Your task to perform on an android device: turn notification dots on Image 0: 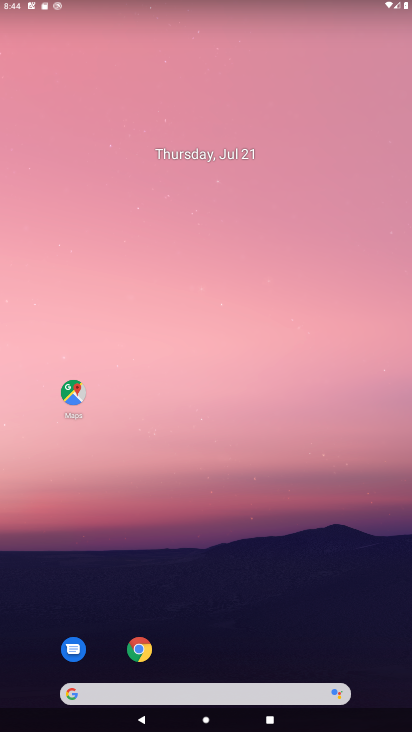
Step 0: drag from (190, 660) to (220, 124)
Your task to perform on an android device: turn notification dots on Image 1: 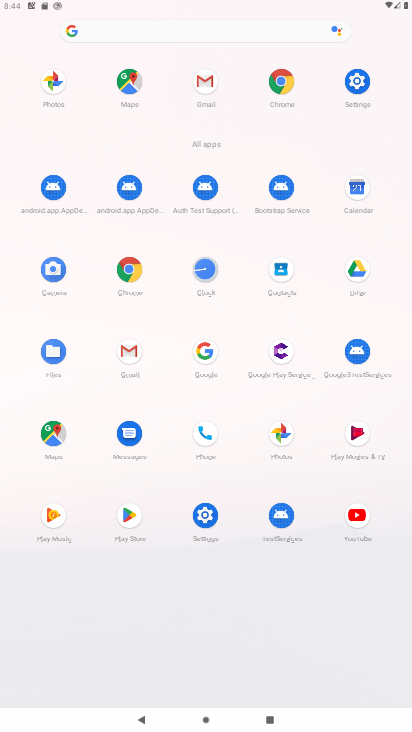
Step 1: click (351, 79)
Your task to perform on an android device: turn notification dots on Image 2: 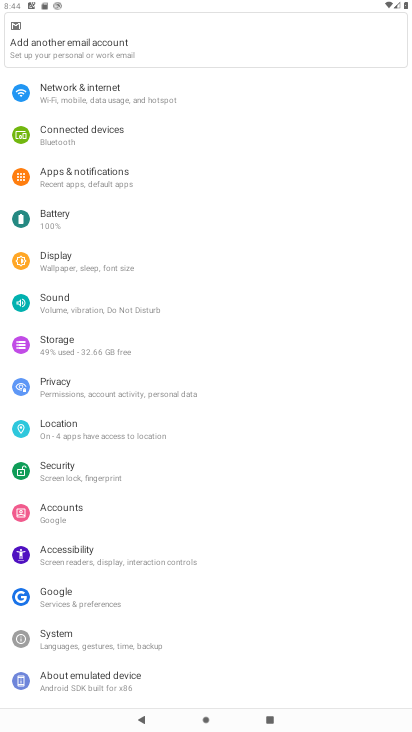
Step 2: click (41, 185)
Your task to perform on an android device: turn notification dots on Image 3: 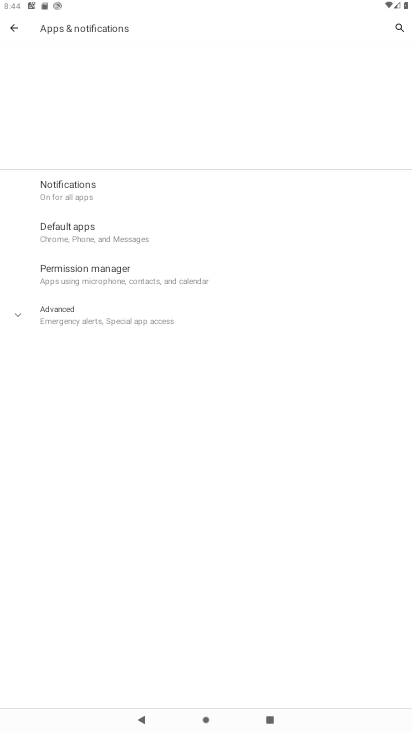
Step 3: click (76, 185)
Your task to perform on an android device: turn notification dots on Image 4: 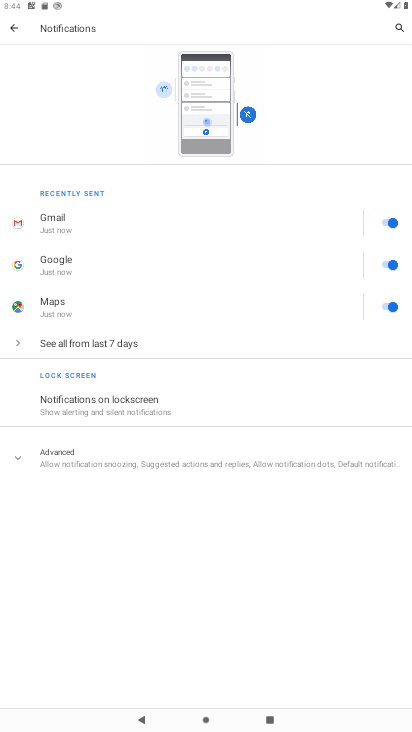
Step 4: click (74, 450)
Your task to perform on an android device: turn notification dots on Image 5: 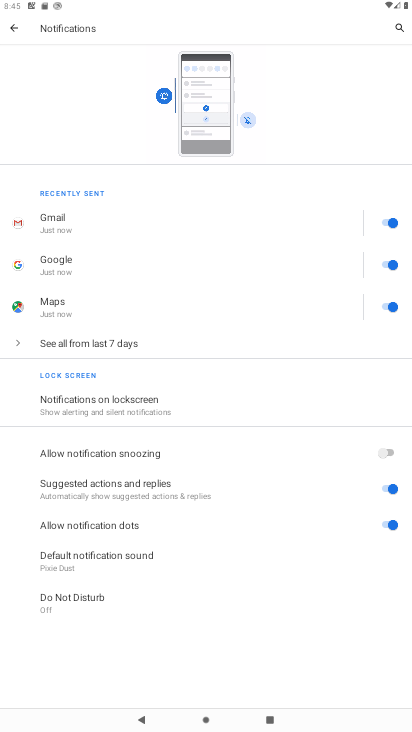
Step 5: task complete